Your task to perform on an android device: Open Youtube and go to "Your channel" Image 0: 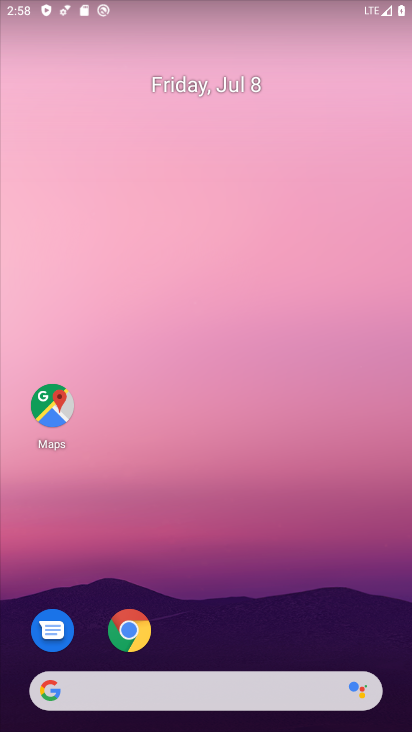
Step 0: drag from (275, 611) to (267, 233)
Your task to perform on an android device: Open Youtube and go to "Your channel" Image 1: 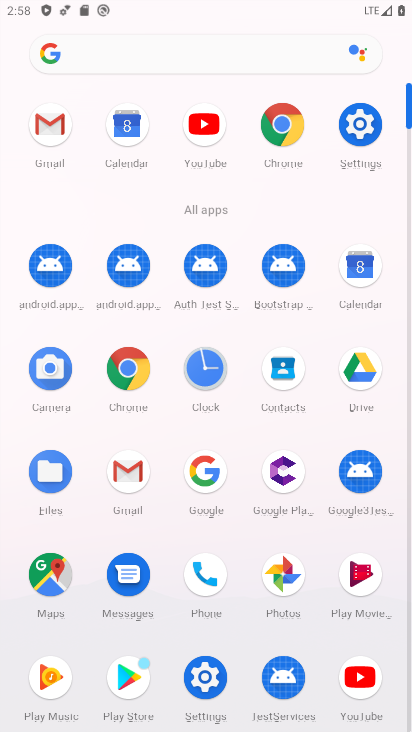
Step 1: click (203, 140)
Your task to perform on an android device: Open Youtube and go to "Your channel" Image 2: 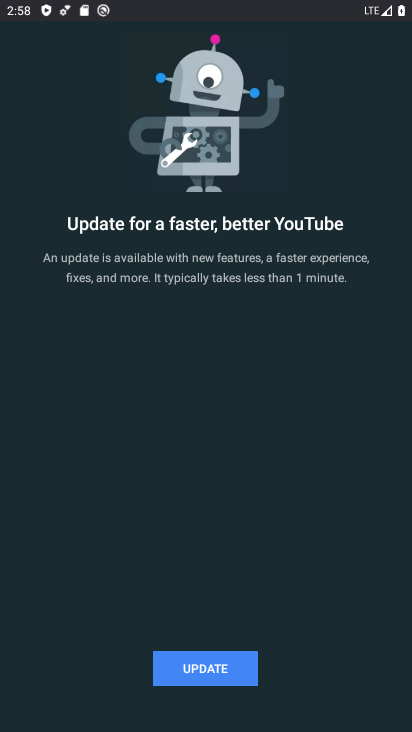
Step 2: task complete